Your task to perform on an android device: Go to internet settings Image 0: 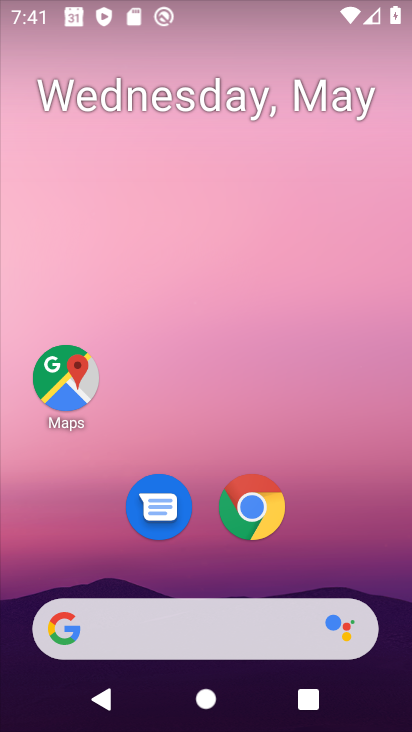
Step 0: drag from (324, 543) to (328, 194)
Your task to perform on an android device: Go to internet settings Image 1: 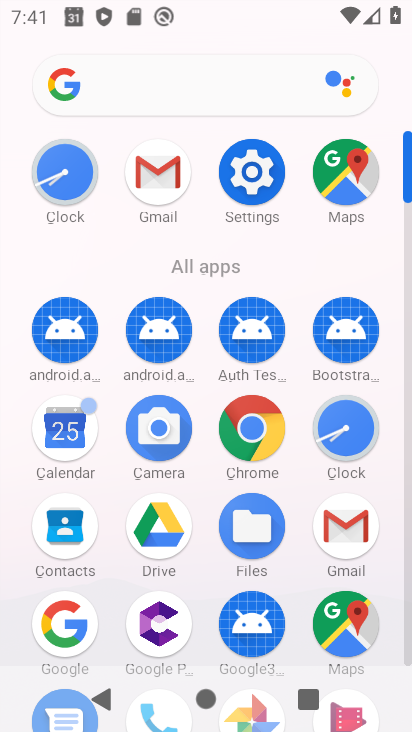
Step 1: click (259, 165)
Your task to perform on an android device: Go to internet settings Image 2: 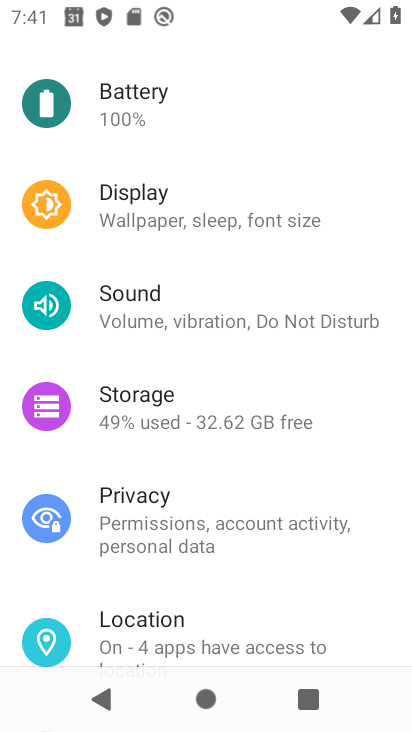
Step 2: drag from (222, 184) to (269, 572)
Your task to perform on an android device: Go to internet settings Image 3: 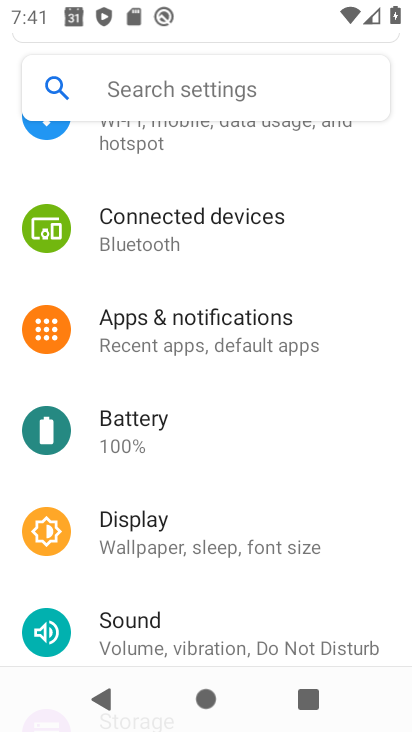
Step 3: drag from (180, 158) to (203, 613)
Your task to perform on an android device: Go to internet settings Image 4: 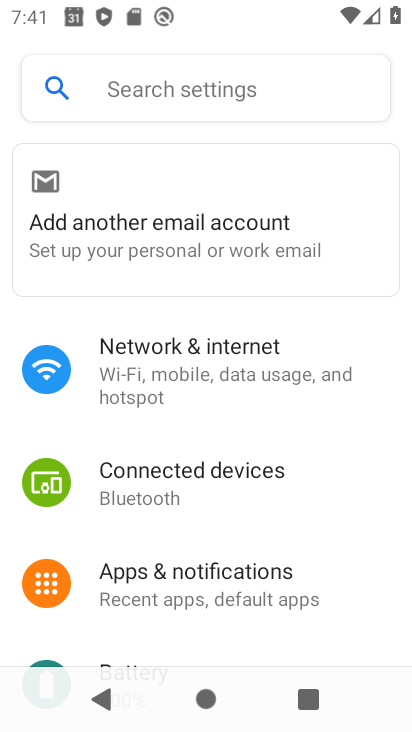
Step 4: click (160, 378)
Your task to perform on an android device: Go to internet settings Image 5: 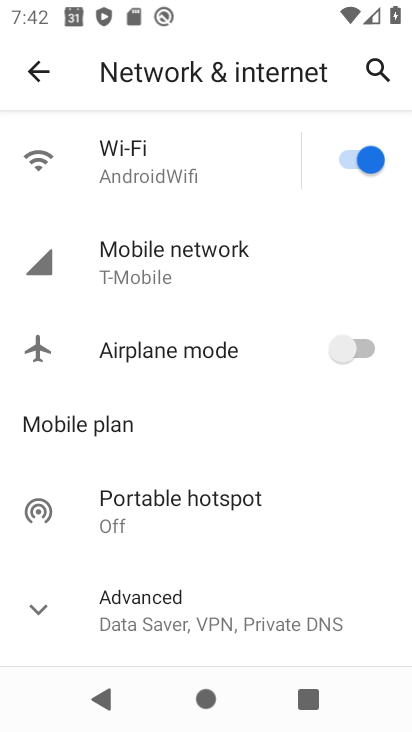
Step 5: task complete